Your task to perform on an android device: turn off translation in the chrome app Image 0: 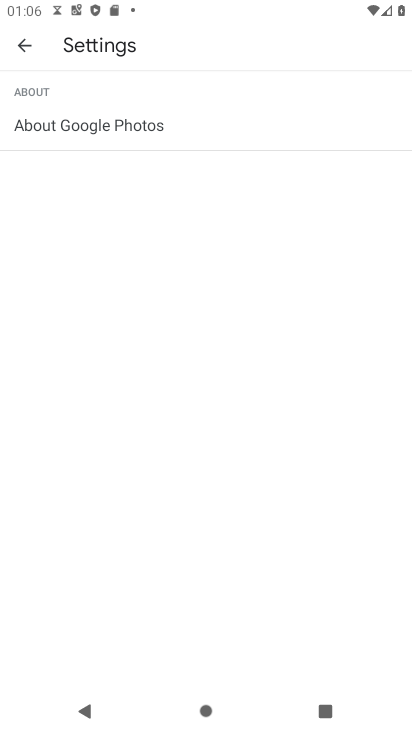
Step 0: press back button
Your task to perform on an android device: turn off translation in the chrome app Image 1: 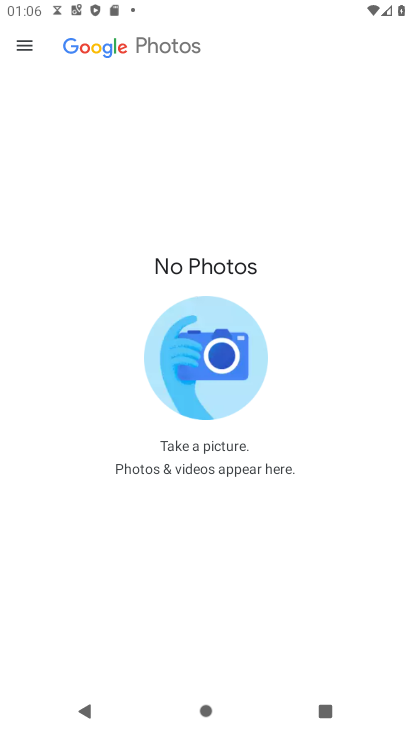
Step 1: press back button
Your task to perform on an android device: turn off translation in the chrome app Image 2: 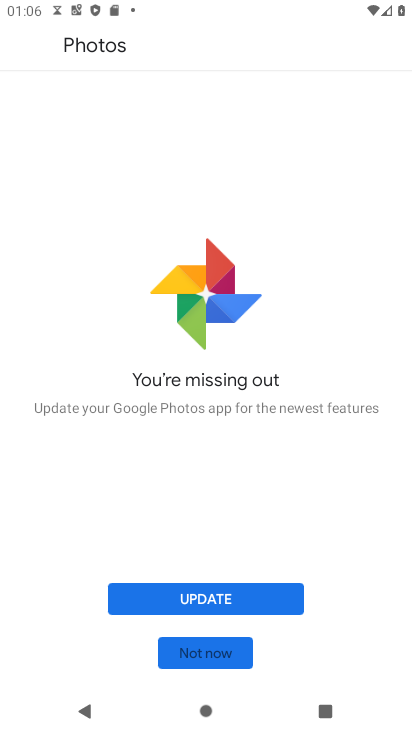
Step 2: click (215, 654)
Your task to perform on an android device: turn off translation in the chrome app Image 3: 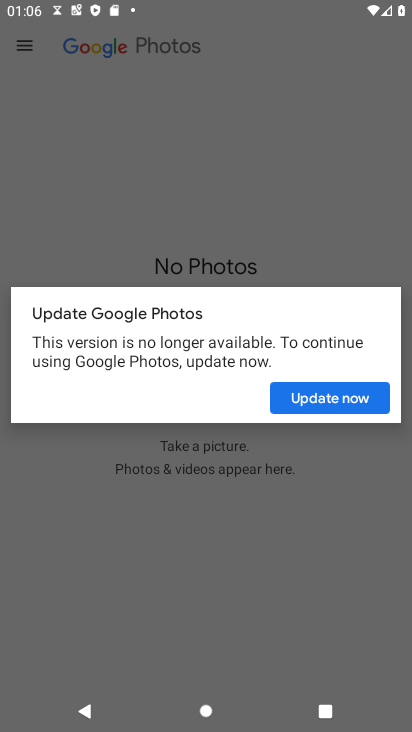
Step 3: press home button
Your task to perform on an android device: turn off translation in the chrome app Image 4: 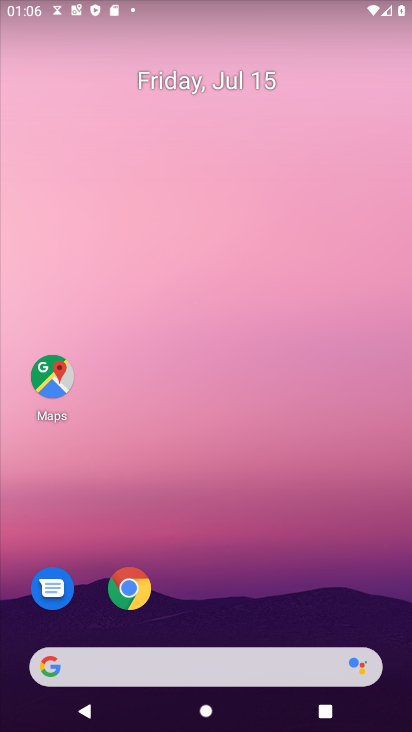
Step 4: click (138, 593)
Your task to perform on an android device: turn off translation in the chrome app Image 5: 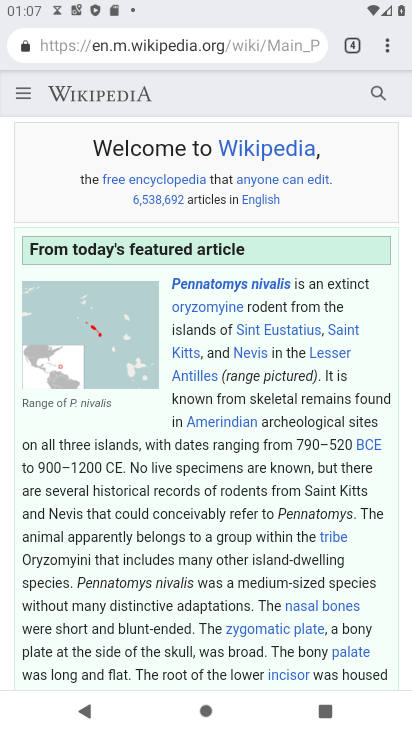
Step 5: drag from (387, 36) to (234, 539)
Your task to perform on an android device: turn off translation in the chrome app Image 6: 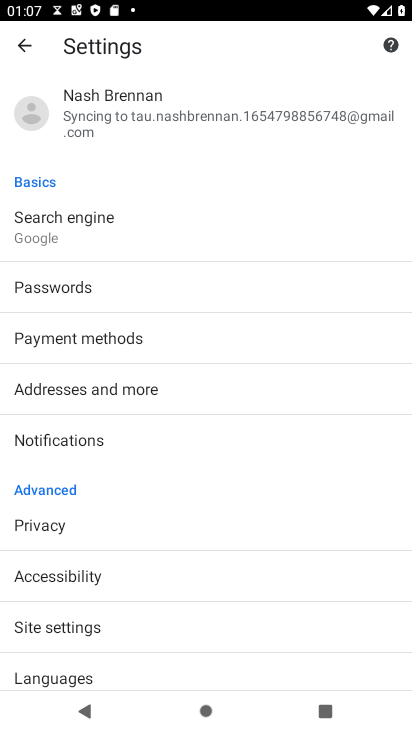
Step 6: click (54, 685)
Your task to perform on an android device: turn off translation in the chrome app Image 7: 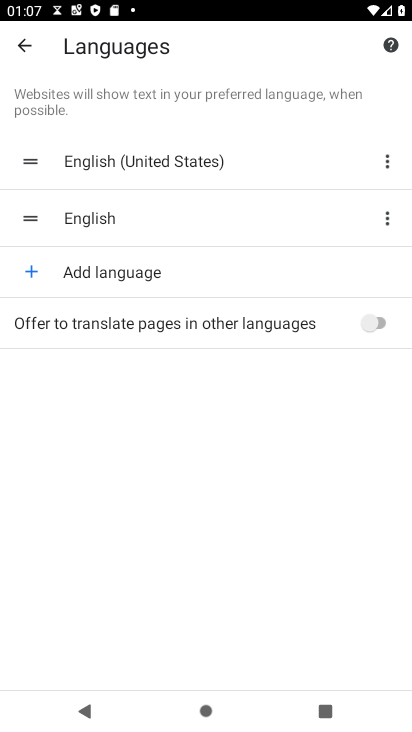
Step 7: task complete